Your task to perform on an android device: open the mobile data screen to see how much data has been used Image 0: 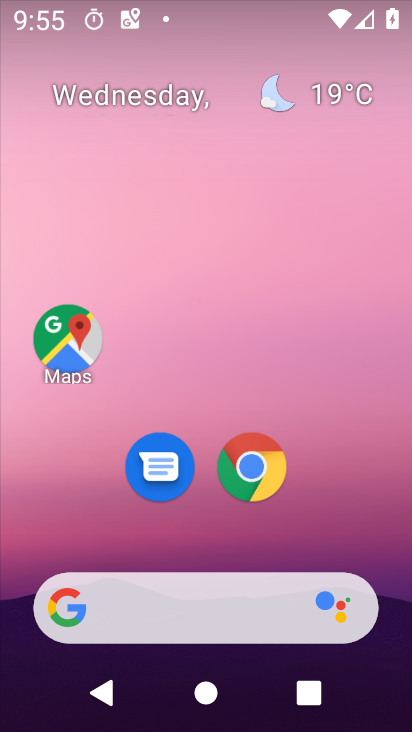
Step 0: drag from (293, 537) to (171, 14)
Your task to perform on an android device: open the mobile data screen to see how much data has been used Image 1: 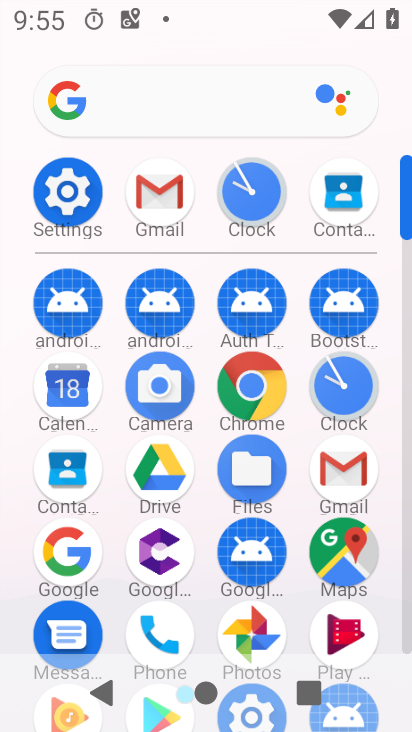
Step 1: click (82, 196)
Your task to perform on an android device: open the mobile data screen to see how much data has been used Image 2: 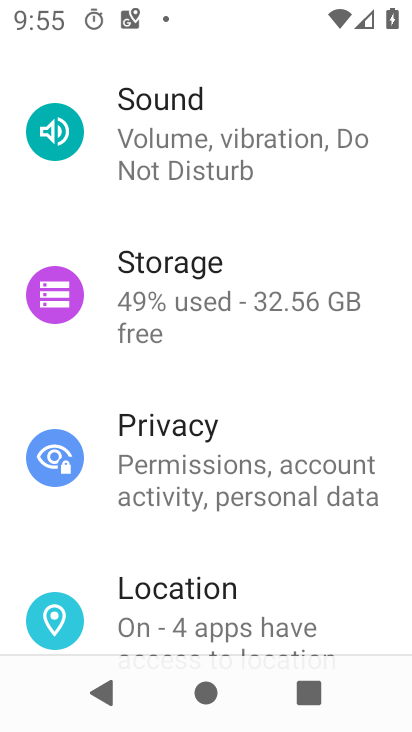
Step 2: drag from (216, 173) to (277, 694)
Your task to perform on an android device: open the mobile data screen to see how much data has been used Image 3: 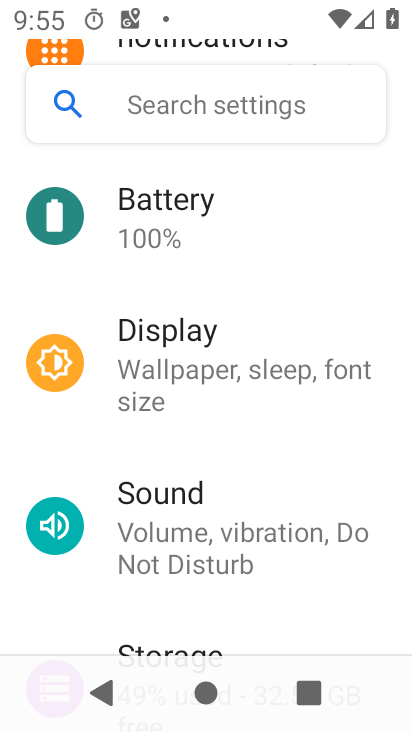
Step 3: drag from (244, 439) to (237, 689)
Your task to perform on an android device: open the mobile data screen to see how much data has been used Image 4: 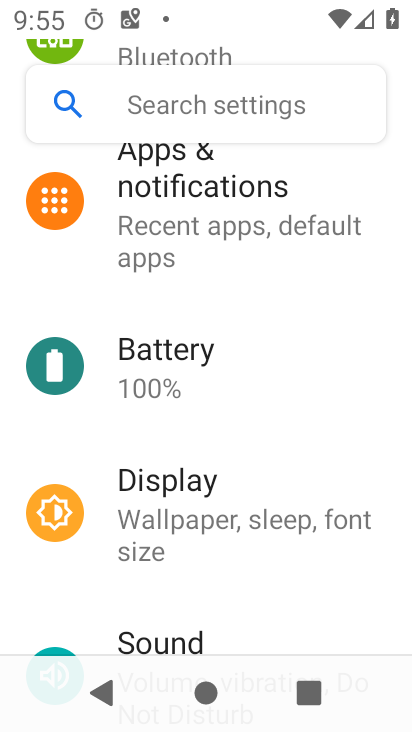
Step 4: drag from (222, 244) to (290, 698)
Your task to perform on an android device: open the mobile data screen to see how much data has been used Image 5: 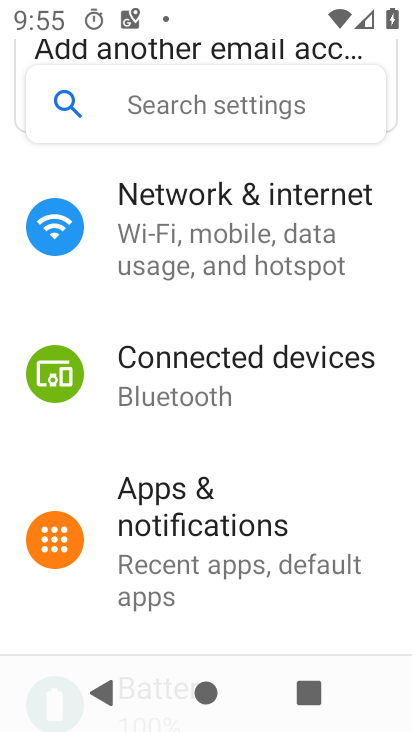
Step 5: click (220, 277)
Your task to perform on an android device: open the mobile data screen to see how much data has been used Image 6: 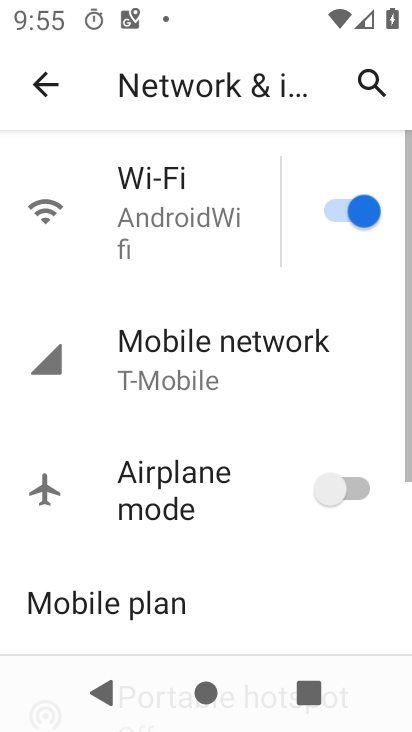
Step 6: click (242, 341)
Your task to perform on an android device: open the mobile data screen to see how much data has been used Image 7: 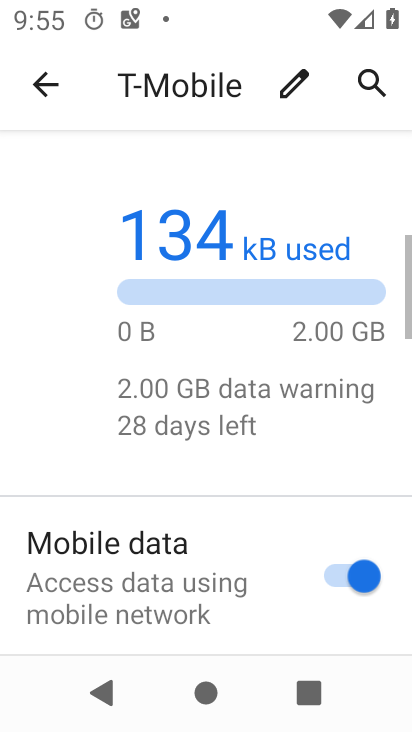
Step 7: task complete